Your task to perform on an android device: Find coffee shops on Maps Image 0: 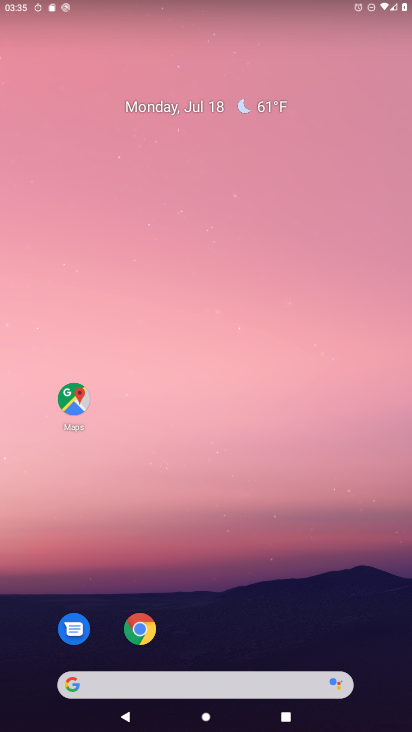
Step 0: click (75, 403)
Your task to perform on an android device: Find coffee shops on Maps Image 1: 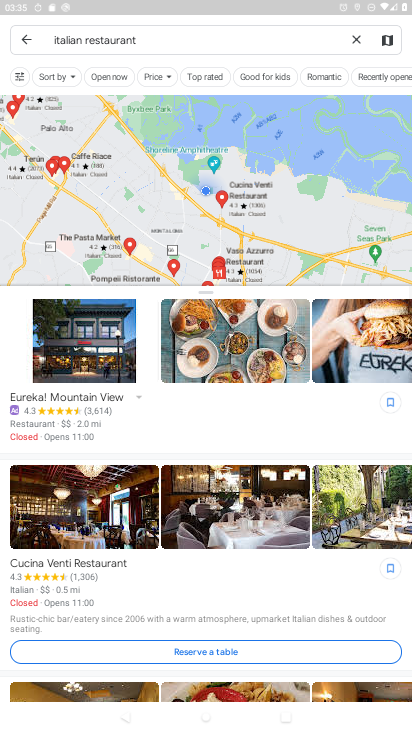
Step 1: click (358, 42)
Your task to perform on an android device: Find coffee shops on Maps Image 2: 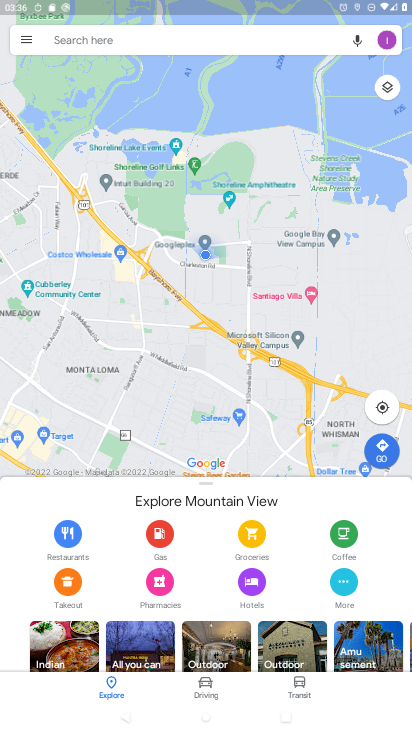
Step 2: type "coffee"
Your task to perform on an android device: Find coffee shops on Maps Image 3: 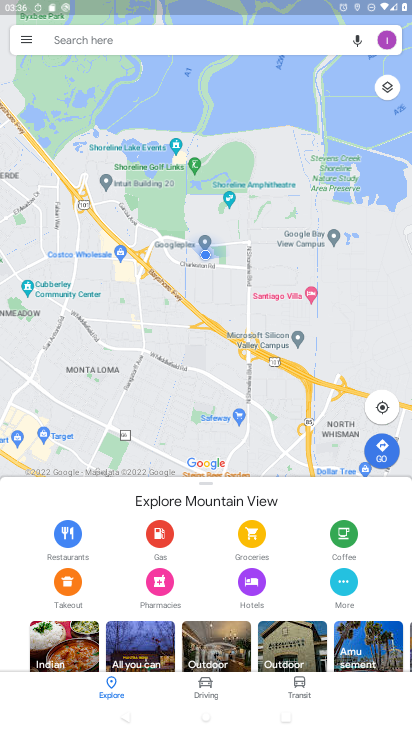
Step 3: click (302, 29)
Your task to perform on an android device: Find coffee shops on Maps Image 4: 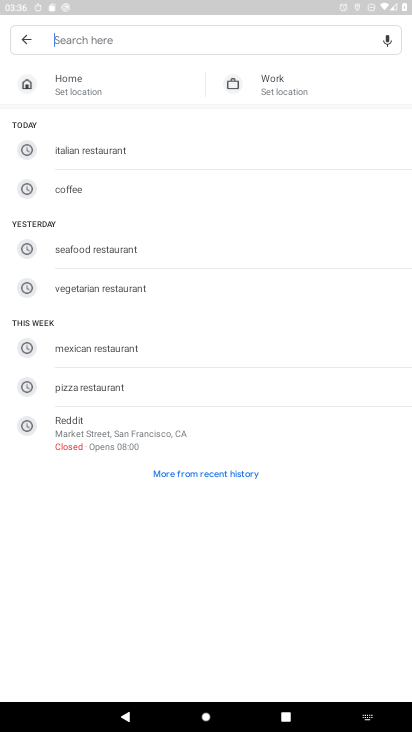
Step 4: type "coffee shops"
Your task to perform on an android device: Find coffee shops on Maps Image 5: 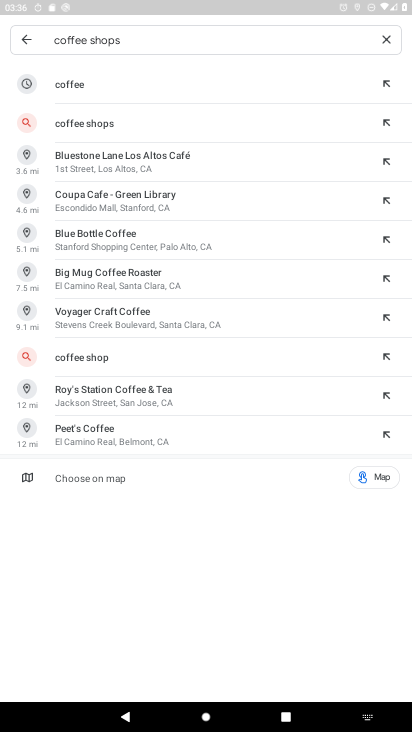
Step 5: click (75, 129)
Your task to perform on an android device: Find coffee shops on Maps Image 6: 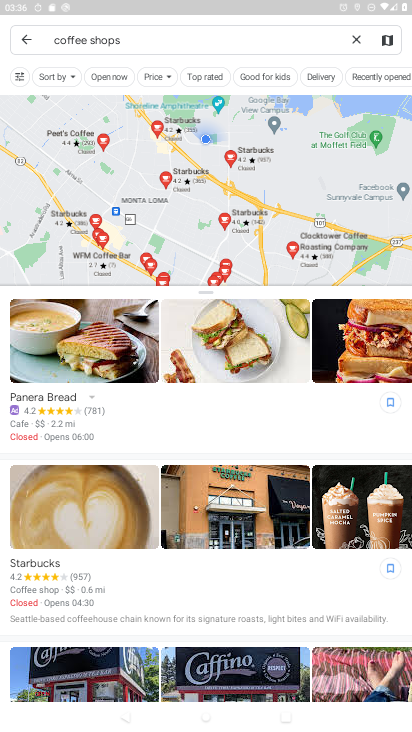
Step 6: task complete